Your task to perform on an android device: choose inbox layout in the gmail app Image 0: 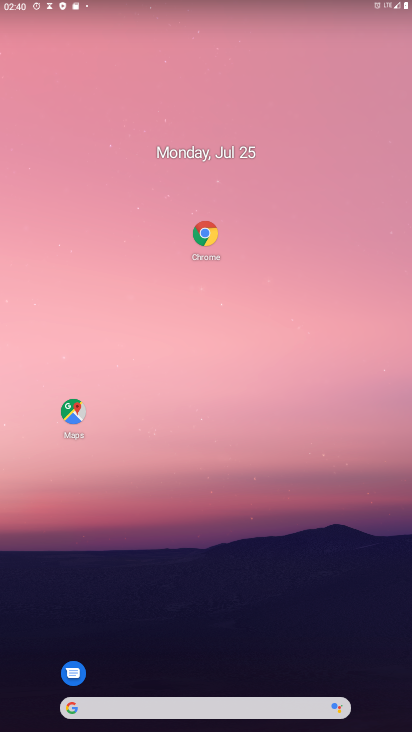
Step 0: drag from (277, 606) to (369, 0)
Your task to perform on an android device: choose inbox layout in the gmail app Image 1: 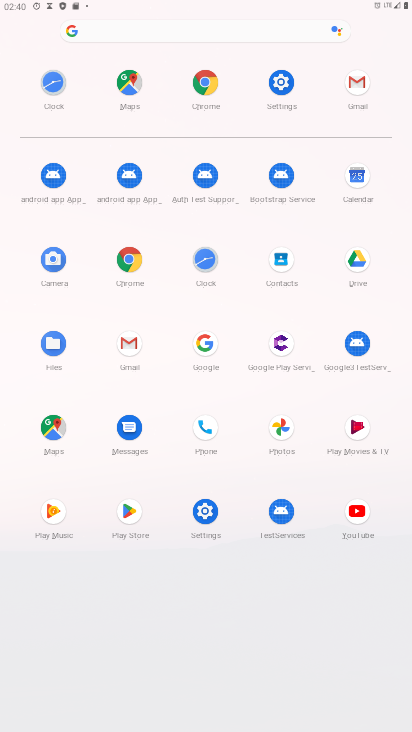
Step 1: click (125, 338)
Your task to perform on an android device: choose inbox layout in the gmail app Image 2: 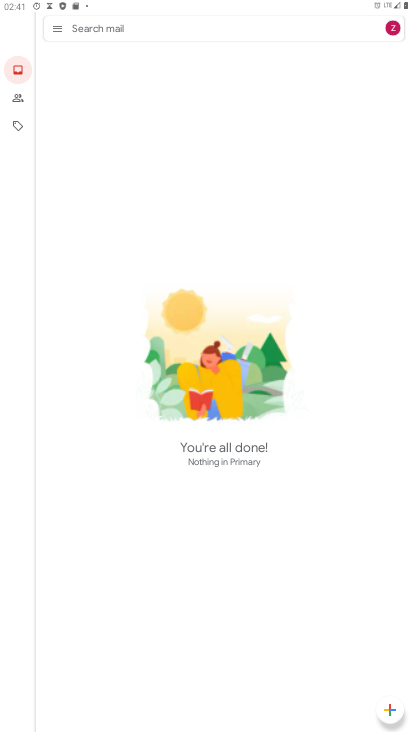
Step 2: click (58, 28)
Your task to perform on an android device: choose inbox layout in the gmail app Image 3: 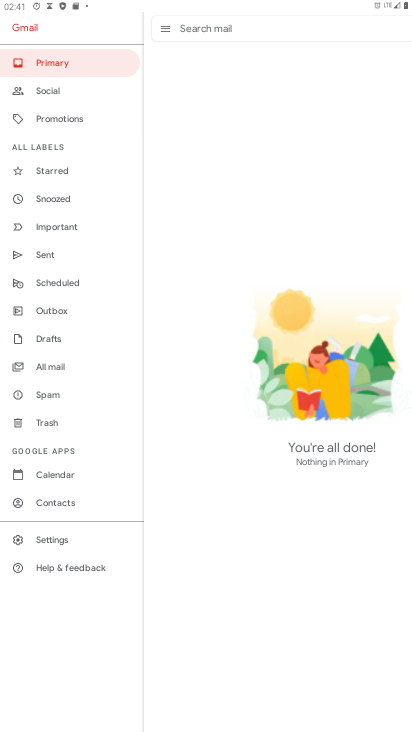
Step 3: click (53, 542)
Your task to perform on an android device: choose inbox layout in the gmail app Image 4: 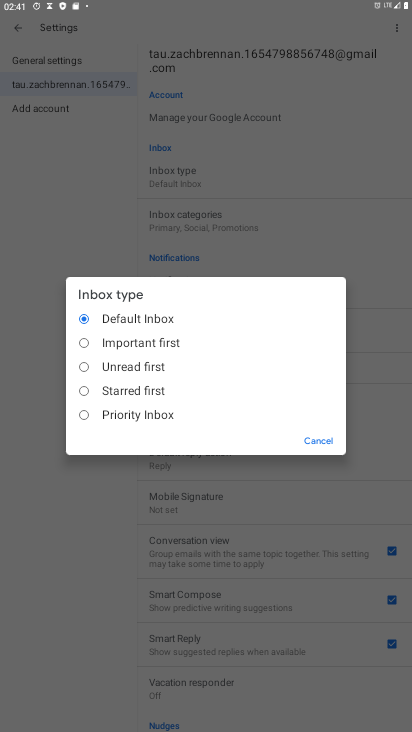
Step 4: click (199, 147)
Your task to perform on an android device: choose inbox layout in the gmail app Image 5: 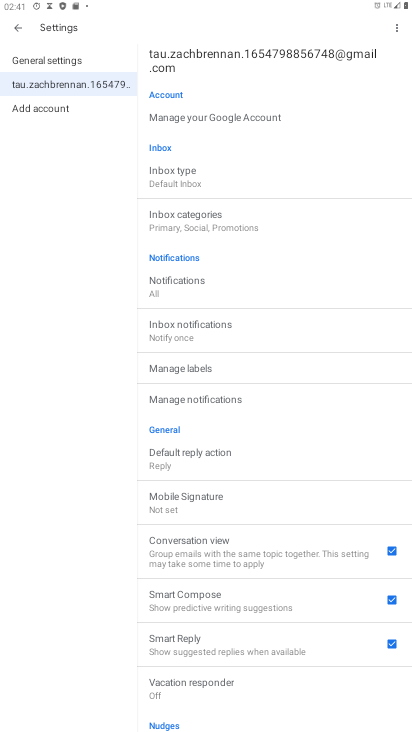
Step 5: click (199, 174)
Your task to perform on an android device: choose inbox layout in the gmail app Image 6: 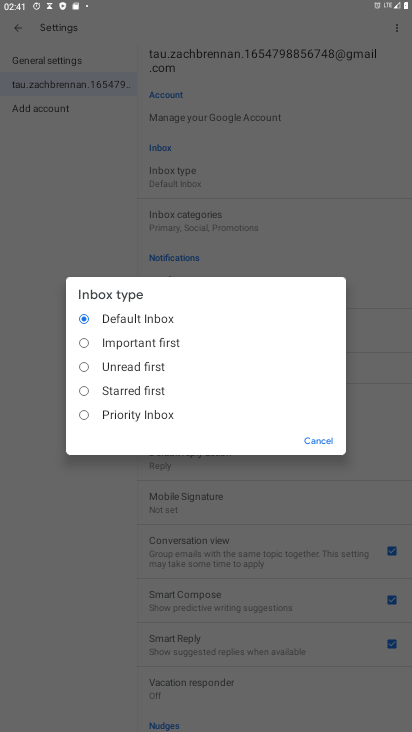
Step 6: click (84, 413)
Your task to perform on an android device: choose inbox layout in the gmail app Image 7: 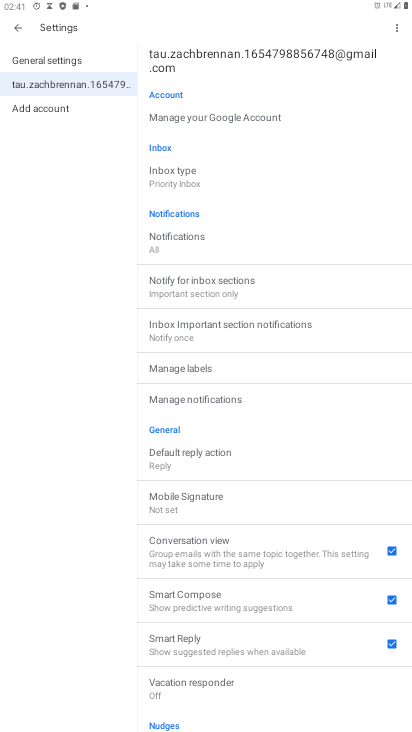
Step 7: task complete